Your task to perform on an android device: clear all cookies in the chrome app Image 0: 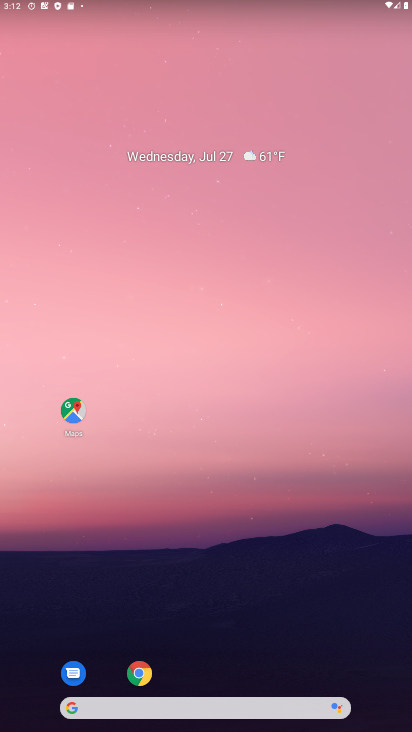
Step 0: click (139, 678)
Your task to perform on an android device: clear all cookies in the chrome app Image 1: 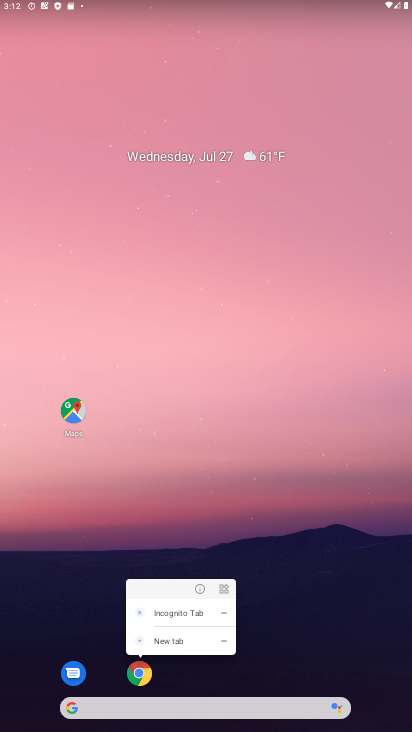
Step 1: click (135, 678)
Your task to perform on an android device: clear all cookies in the chrome app Image 2: 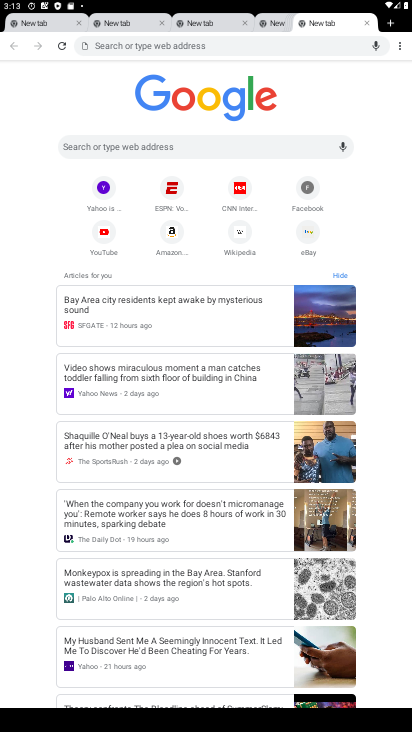
Step 2: click (402, 41)
Your task to perform on an android device: clear all cookies in the chrome app Image 3: 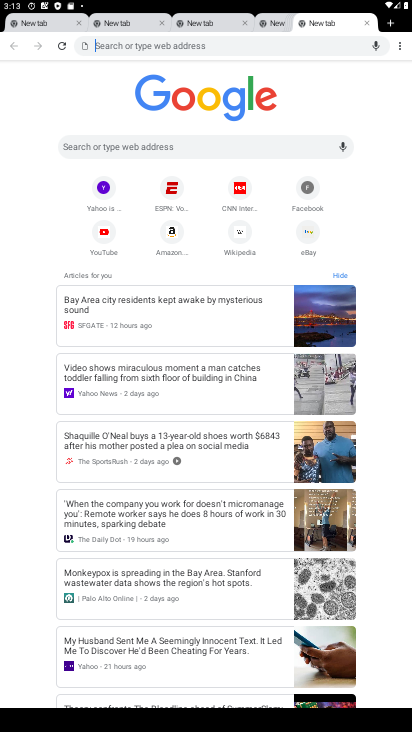
Step 3: click (398, 43)
Your task to perform on an android device: clear all cookies in the chrome app Image 4: 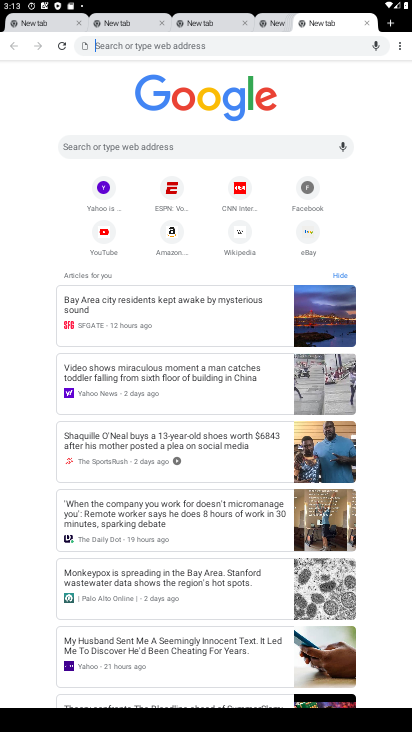
Step 4: task complete